Your task to perform on an android device: open chrome and create a bookmark for the current page Image 0: 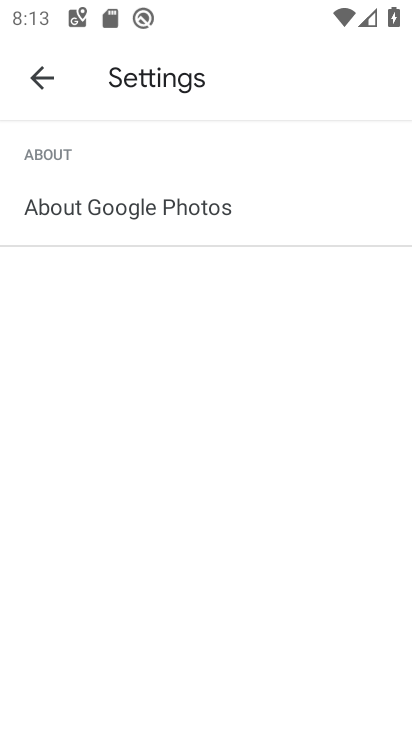
Step 0: press home button
Your task to perform on an android device: open chrome and create a bookmark for the current page Image 1: 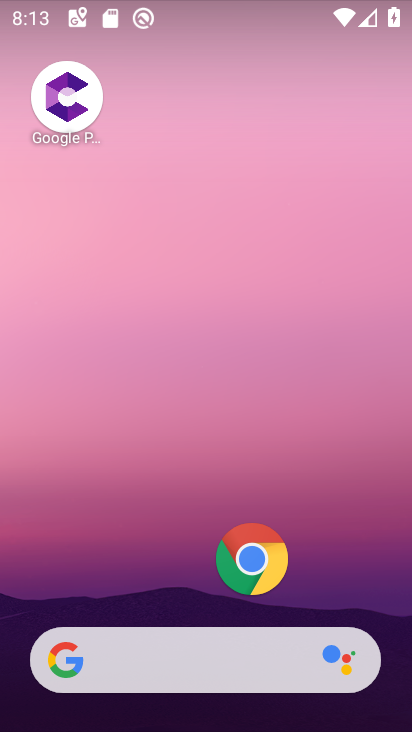
Step 1: click (244, 549)
Your task to perform on an android device: open chrome and create a bookmark for the current page Image 2: 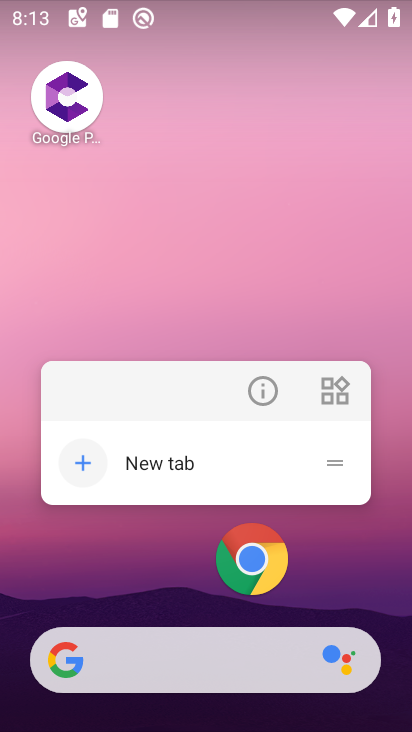
Step 2: click (244, 549)
Your task to perform on an android device: open chrome and create a bookmark for the current page Image 3: 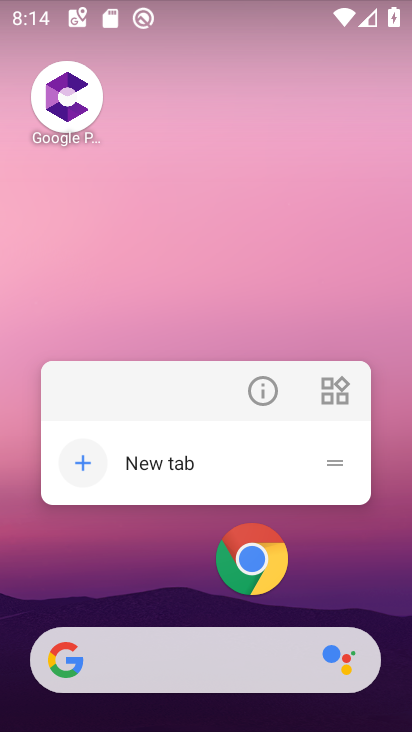
Step 3: click (274, 557)
Your task to perform on an android device: open chrome and create a bookmark for the current page Image 4: 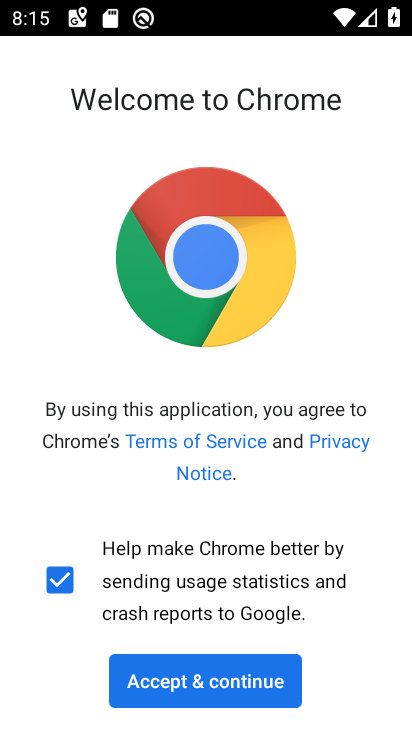
Step 4: click (234, 668)
Your task to perform on an android device: open chrome and create a bookmark for the current page Image 5: 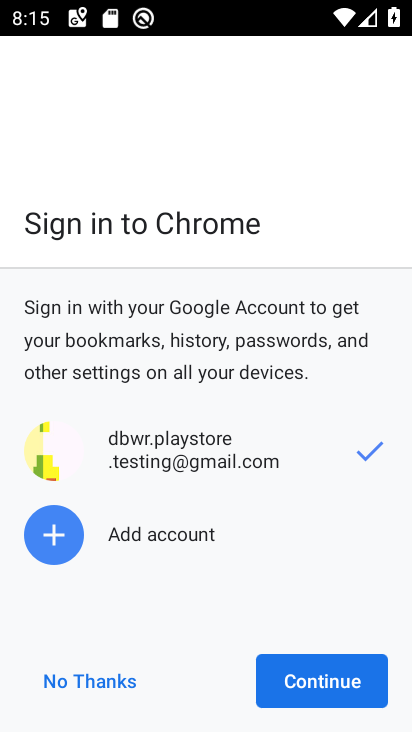
Step 5: click (344, 694)
Your task to perform on an android device: open chrome and create a bookmark for the current page Image 6: 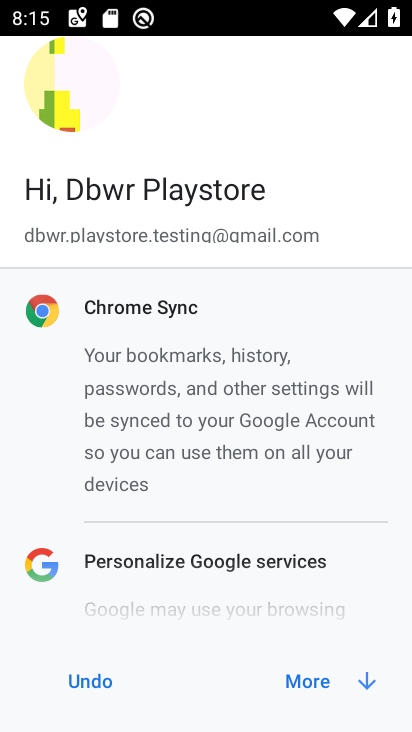
Step 6: click (344, 694)
Your task to perform on an android device: open chrome and create a bookmark for the current page Image 7: 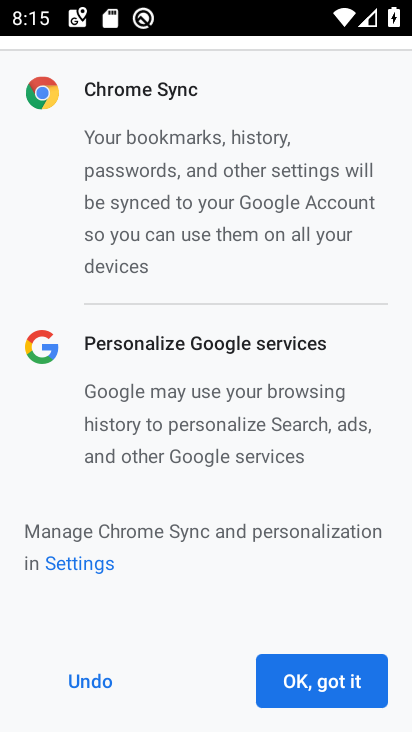
Step 7: click (344, 694)
Your task to perform on an android device: open chrome and create a bookmark for the current page Image 8: 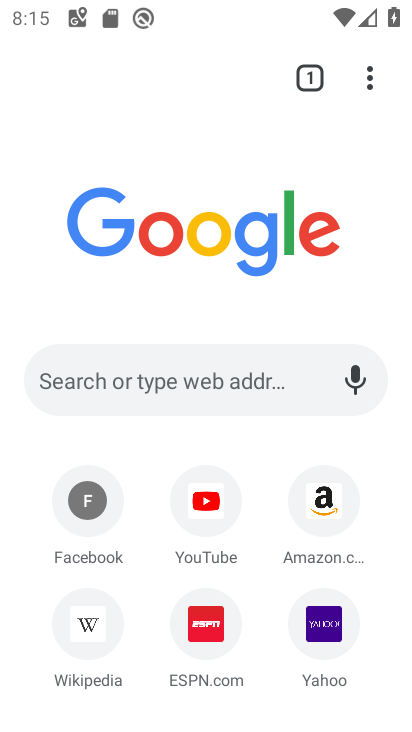
Step 8: click (372, 69)
Your task to perform on an android device: open chrome and create a bookmark for the current page Image 9: 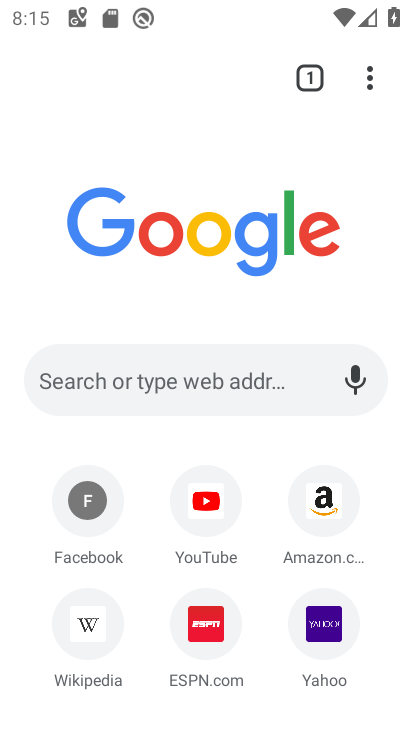
Step 9: task complete